Your task to perform on an android device: open chrome and create a bookmark for the current page Image 0: 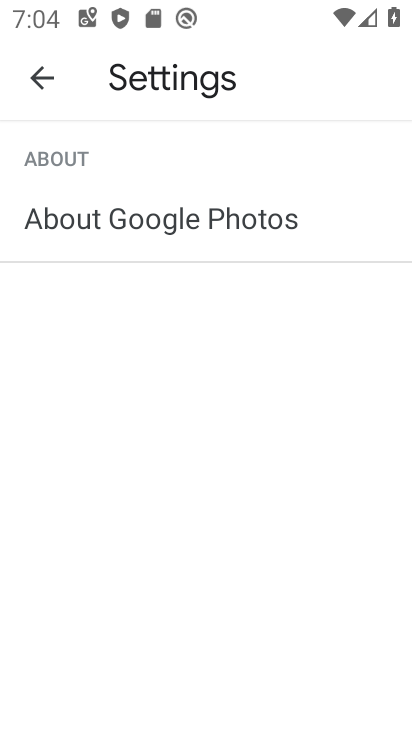
Step 0: press home button
Your task to perform on an android device: open chrome and create a bookmark for the current page Image 1: 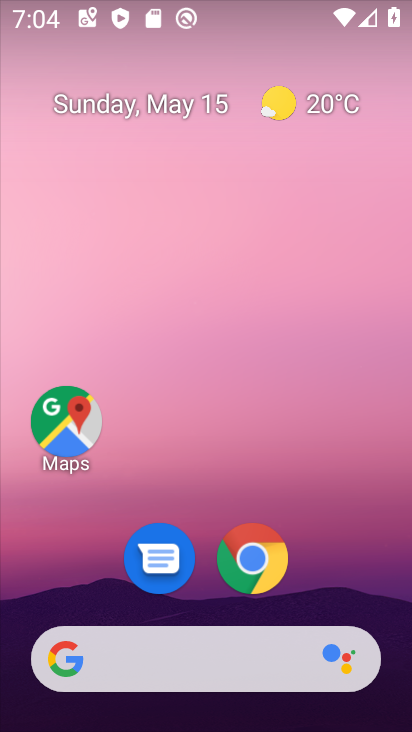
Step 1: click (249, 558)
Your task to perform on an android device: open chrome and create a bookmark for the current page Image 2: 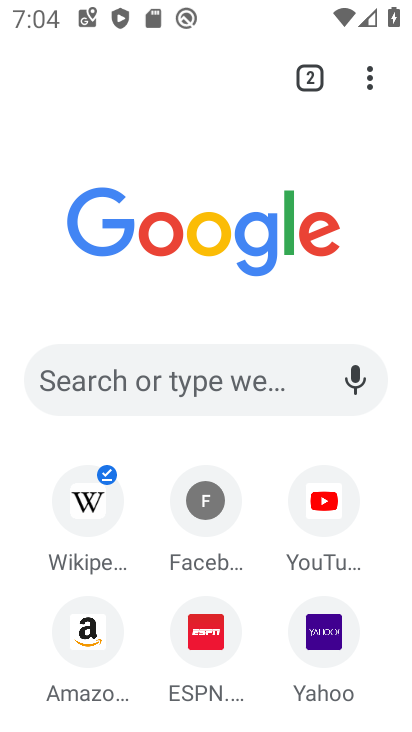
Step 2: click (364, 69)
Your task to perform on an android device: open chrome and create a bookmark for the current page Image 3: 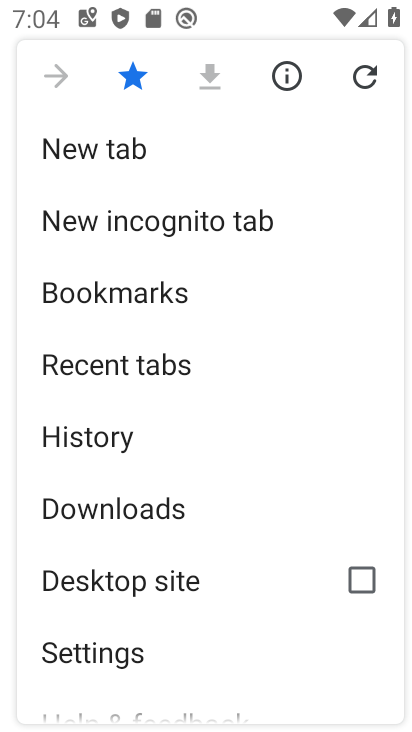
Step 3: task complete